Your task to perform on an android device: Go to notification settings Image 0: 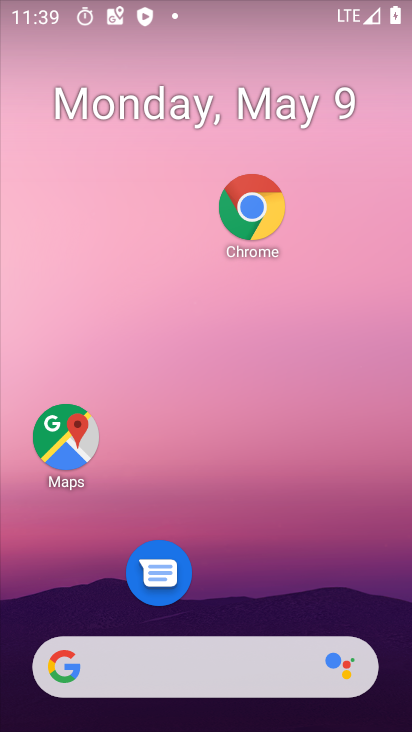
Step 0: drag from (225, 658) to (295, 185)
Your task to perform on an android device: Go to notification settings Image 1: 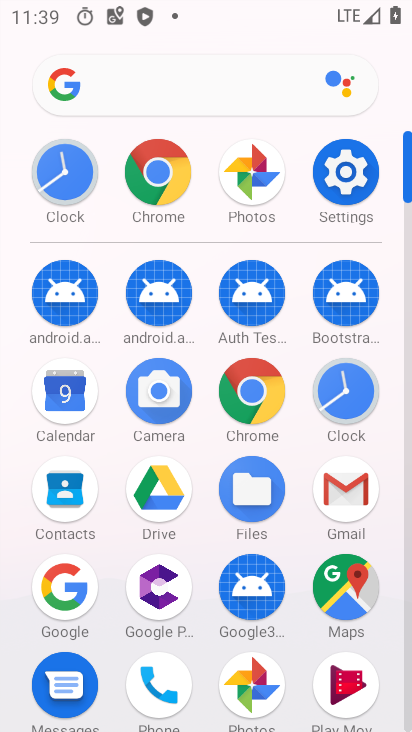
Step 1: click (350, 221)
Your task to perform on an android device: Go to notification settings Image 2: 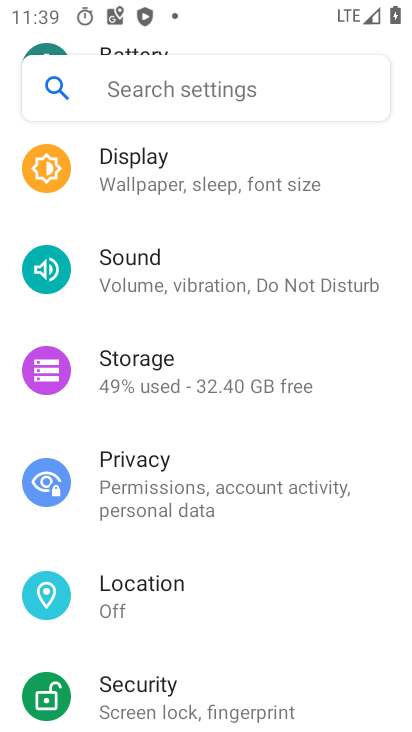
Step 2: drag from (314, 341) to (226, 614)
Your task to perform on an android device: Go to notification settings Image 3: 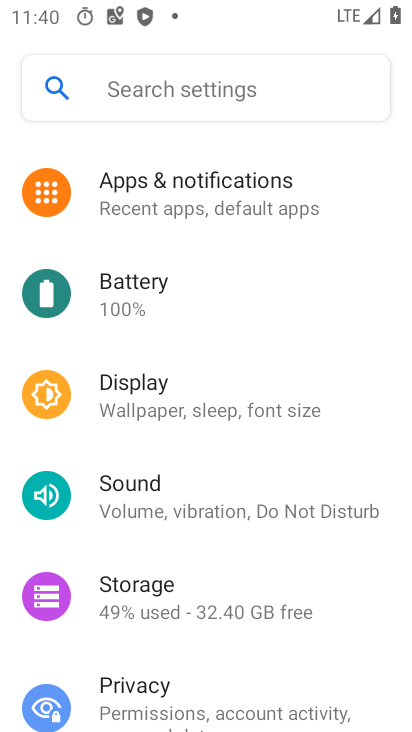
Step 3: click (234, 204)
Your task to perform on an android device: Go to notification settings Image 4: 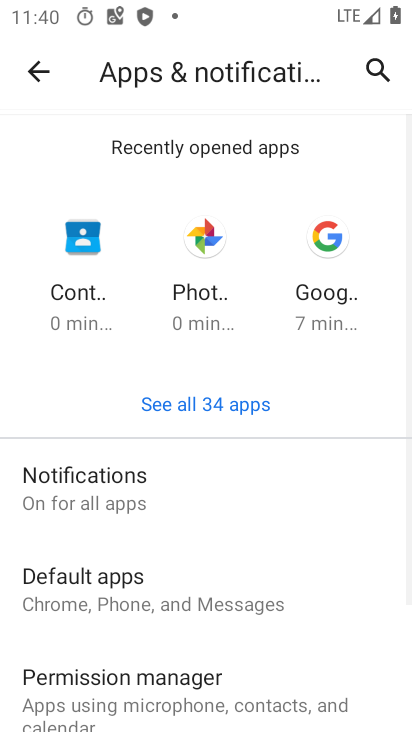
Step 4: task complete